Your task to perform on an android device: Open maps Image 0: 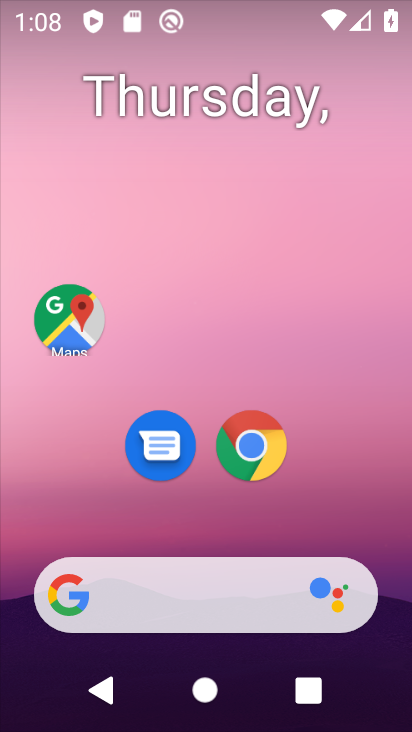
Step 0: press home button
Your task to perform on an android device: Open maps Image 1: 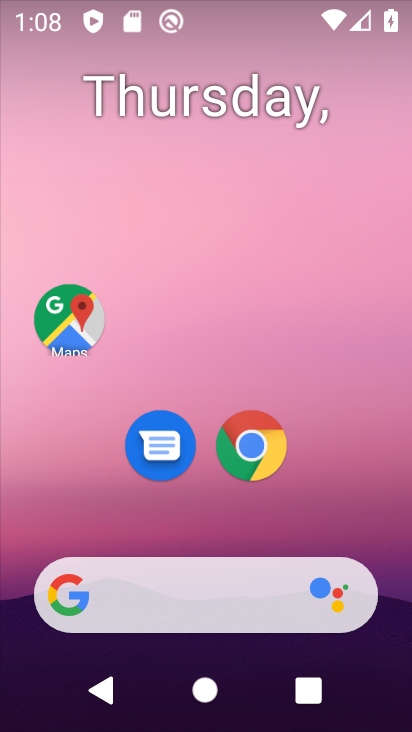
Step 1: click (57, 316)
Your task to perform on an android device: Open maps Image 2: 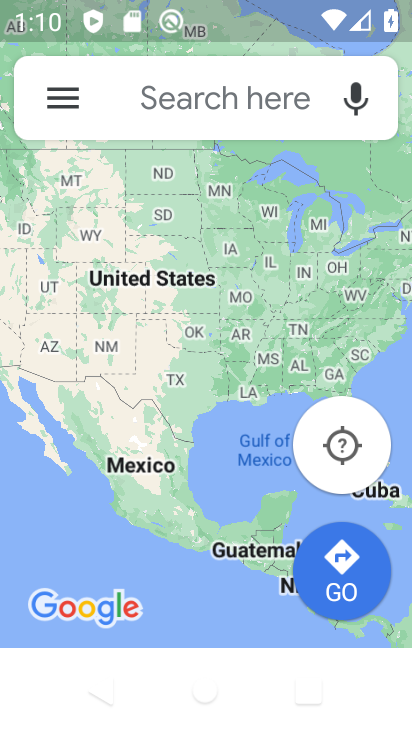
Step 2: task complete